Your task to perform on an android device: What does the iPhone 8 look like? Image 0: 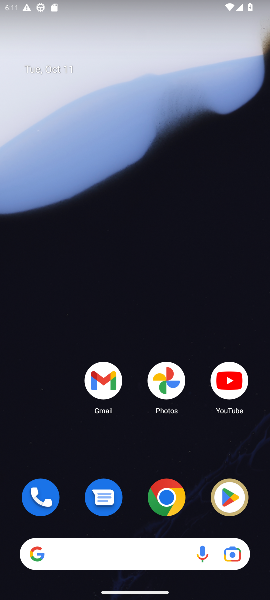
Step 0: click (114, 553)
Your task to perform on an android device: What does the iPhone 8 look like? Image 1: 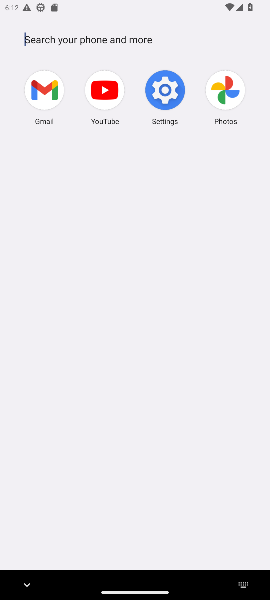
Step 1: type "What does the iPhone 8 look like?"
Your task to perform on an android device: What does the iPhone 8 look like? Image 2: 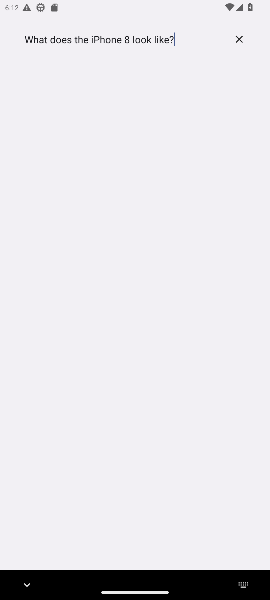
Step 2: press enter
Your task to perform on an android device: What does the iPhone 8 look like? Image 3: 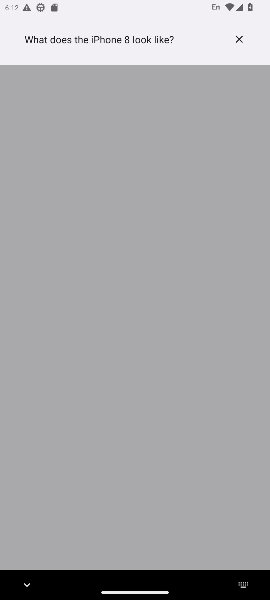
Step 3: click (96, 45)
Your task to perform on an android device: What does the iPhone 8 look like? Image 4: 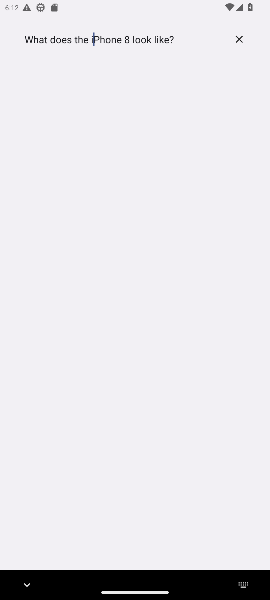
Step 4: click (96, 45)
Your task to perform on an android device: What does the iPhone 8 look like? Image 5: 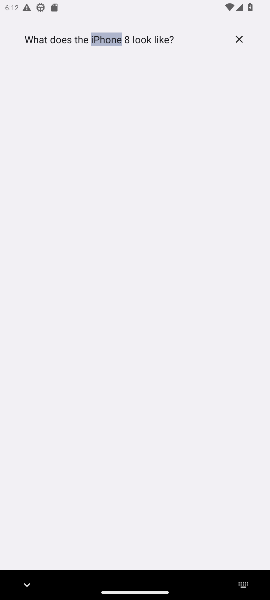
Step 5: click (96, 45)
Your task to perform on an android device: What does the iPhone 8 look like? Image 6: 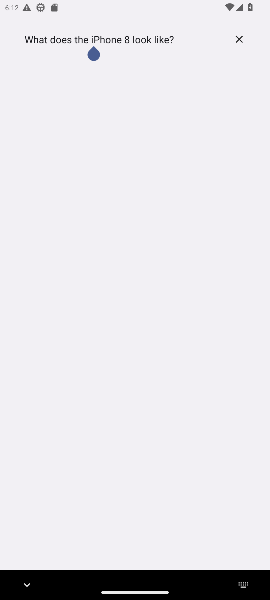
Step 6: click (96, 45)
Your task to perform on an android device: What does the iPhone 8 look like? Image 7: 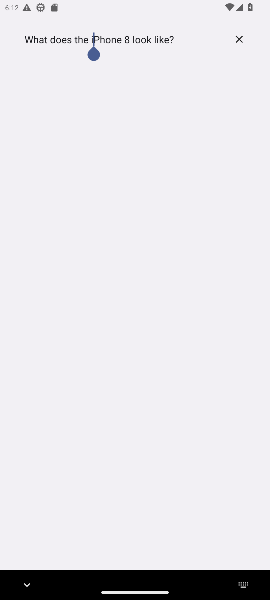
Step 7: press enter
Your task to perform on an android device: What does the iPhone 8 look like? Image 8: 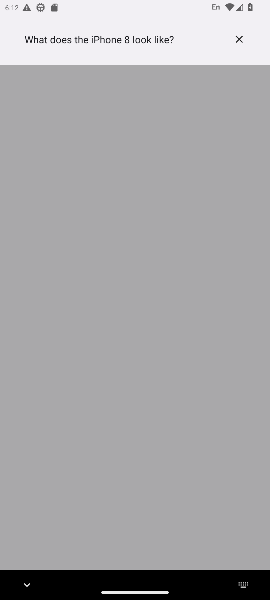
Step 8: click (43, 51)
Your task to perform on an android device: What does the iPhone 8 look like? Image 9: 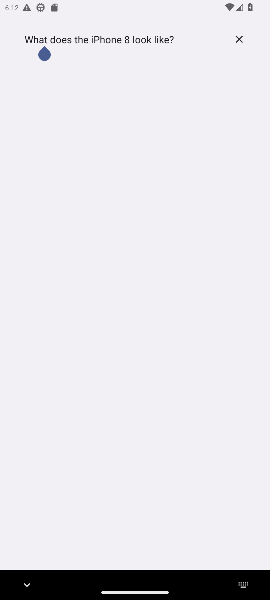
Step 9: click (58, 47)
Your task to perform on an android device: What does the iPhone 8 look like? Image 10: 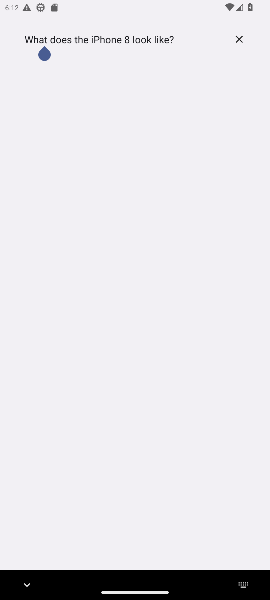
Step 10: click (58, 47)
Your task to perform on an android device: What does the iPhone 8 look like? Image 11: 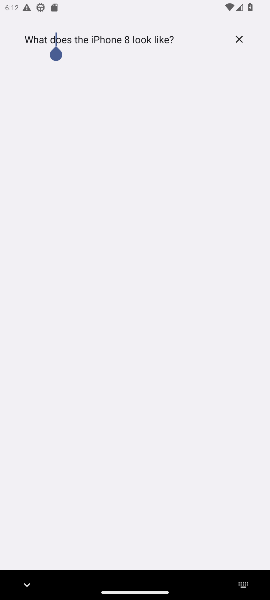
Step 11: click (58, 47)
Your task to perform on an android device: What does the iPhone 8 look like? Image 12: 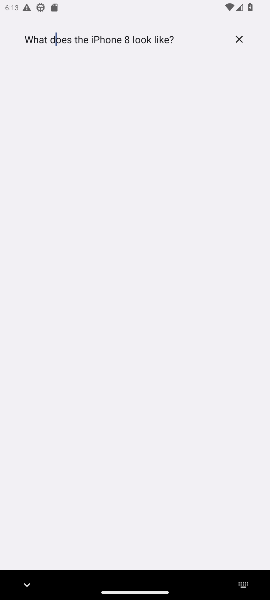
Step 12: click (139, 39)
Your task to perform on an android device: What does the iPhone 8 look like? Image 13: 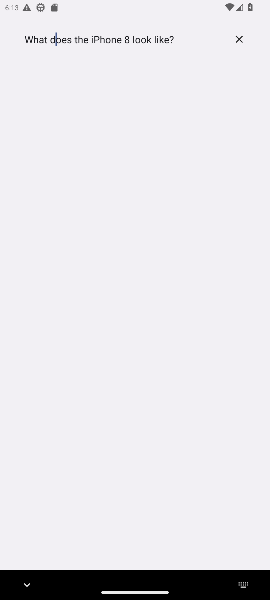
Step 13: click (139, 40)
Your task to perform on an android device: What does the iPhone 8 look like? Image 14: 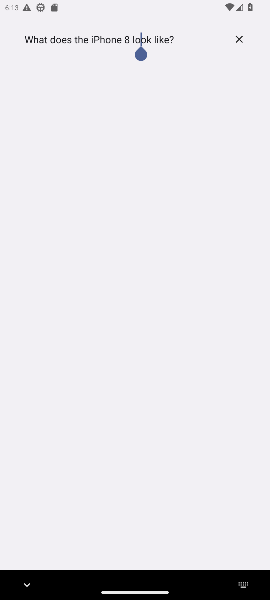
Step 14: click (139, 40)
Your task to perform on an android device: What does the iPhone 8 look like? Image 15: 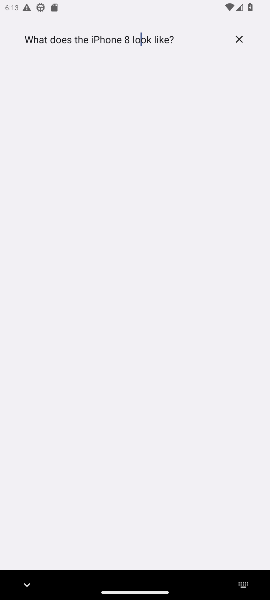
Step 15: task complete